Your task to perform on an android device: check out phone information Image 0: 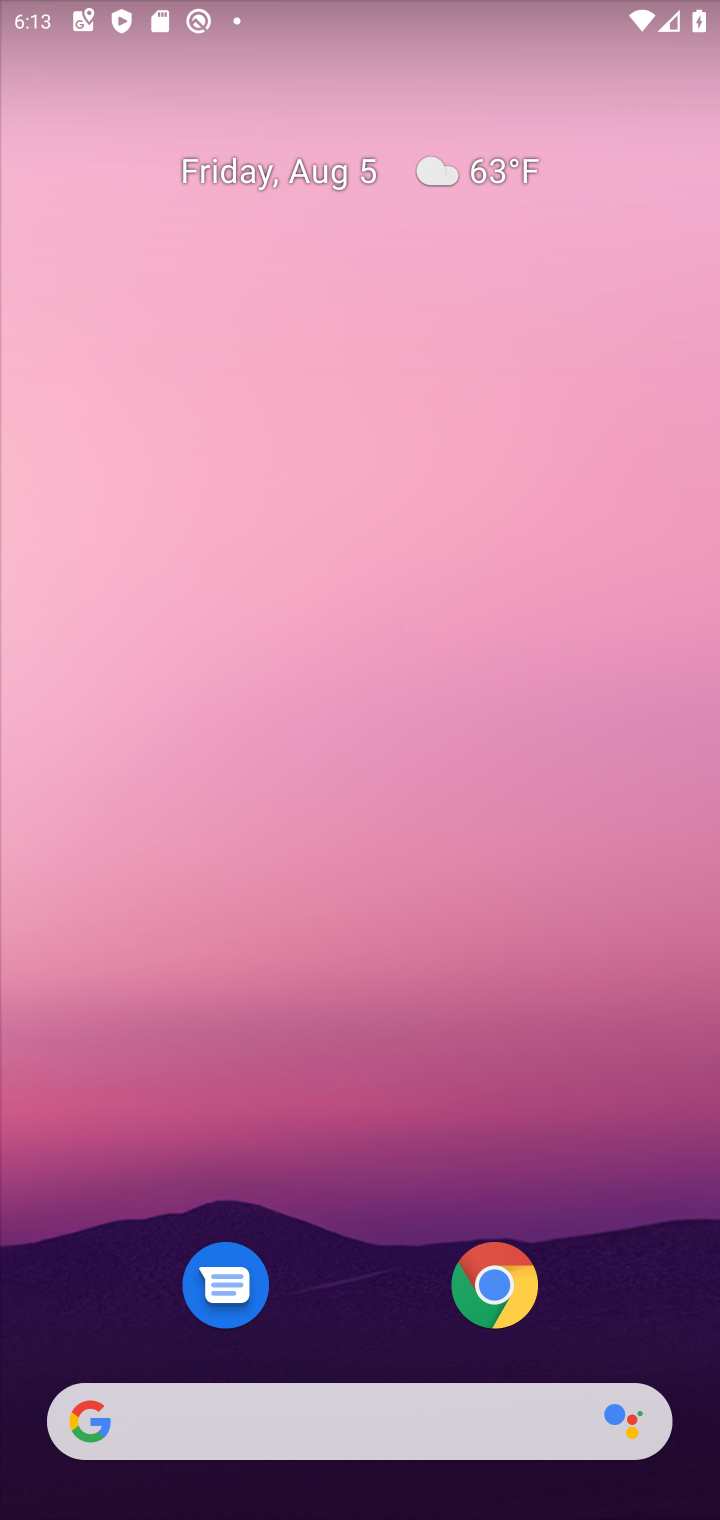
Step 0: drag from (367, 1282) to (316, 510)
Your task to perform on an android device: check out phone information Image 1: 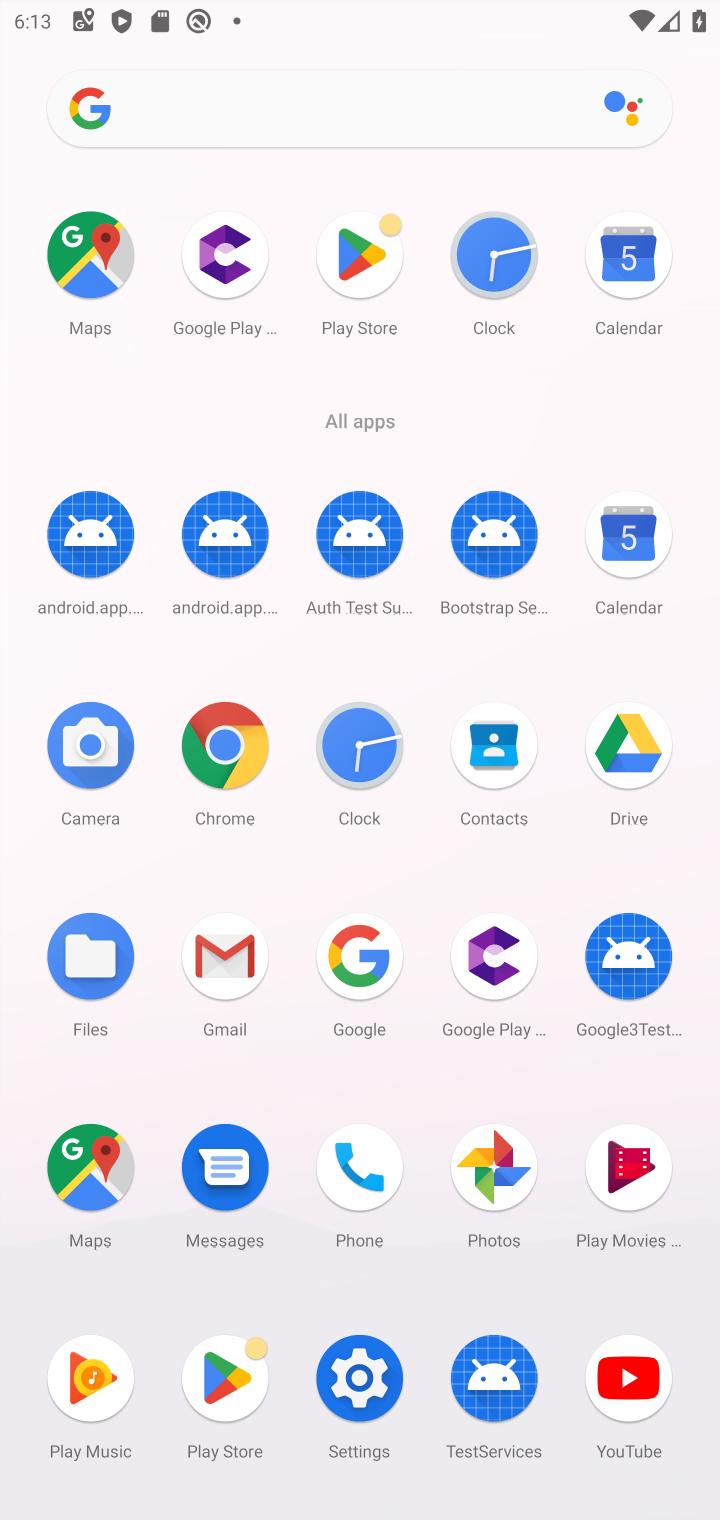
Step 1: click (359, 1369)
Your task to perform on an android device: check out phone information Image 2: 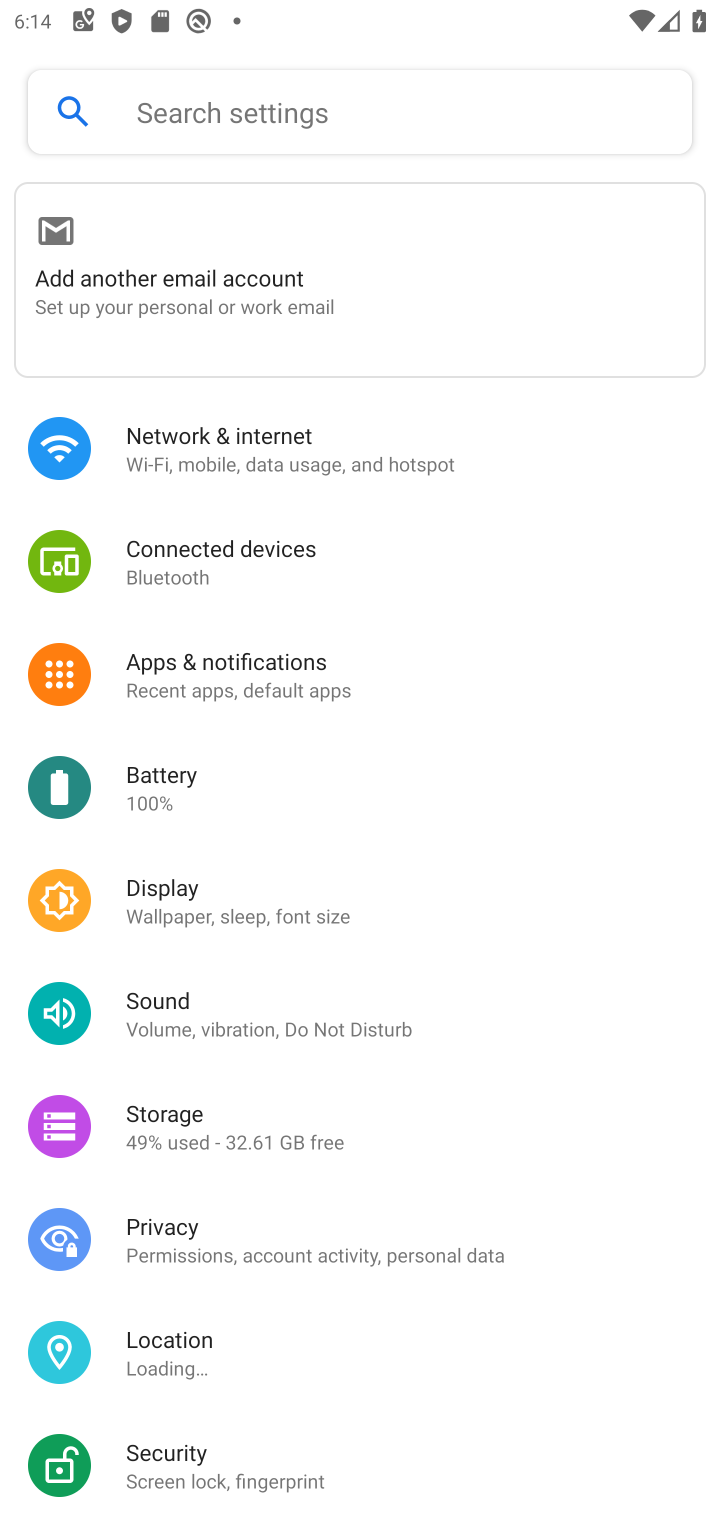
Step 2: drag from (254, 1462) to (254, 701)
Your task to perform on an android device: check out phone information Image 3: 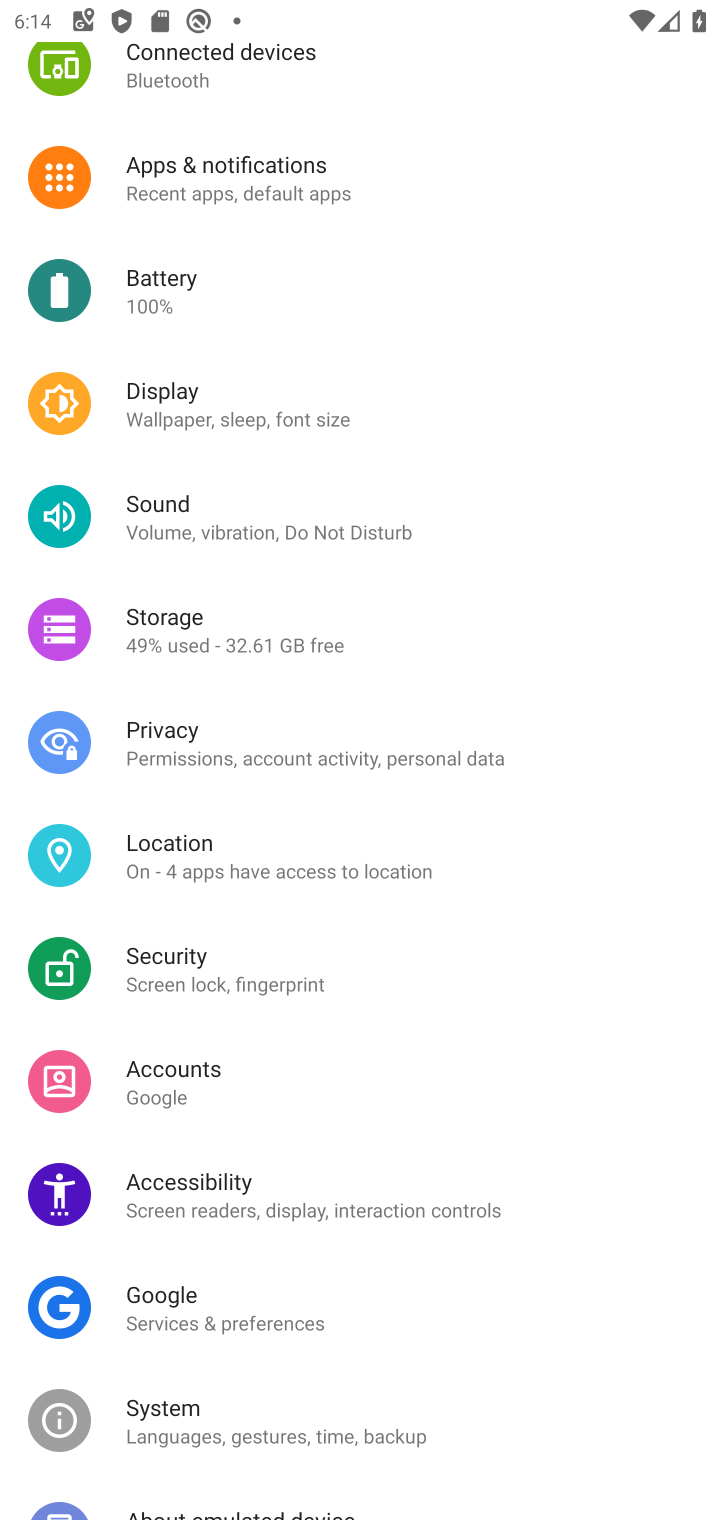
Step 3: drag from (197, 1308) to (196, 835)
Your task to perform on an android device: check out phone information Image 4: 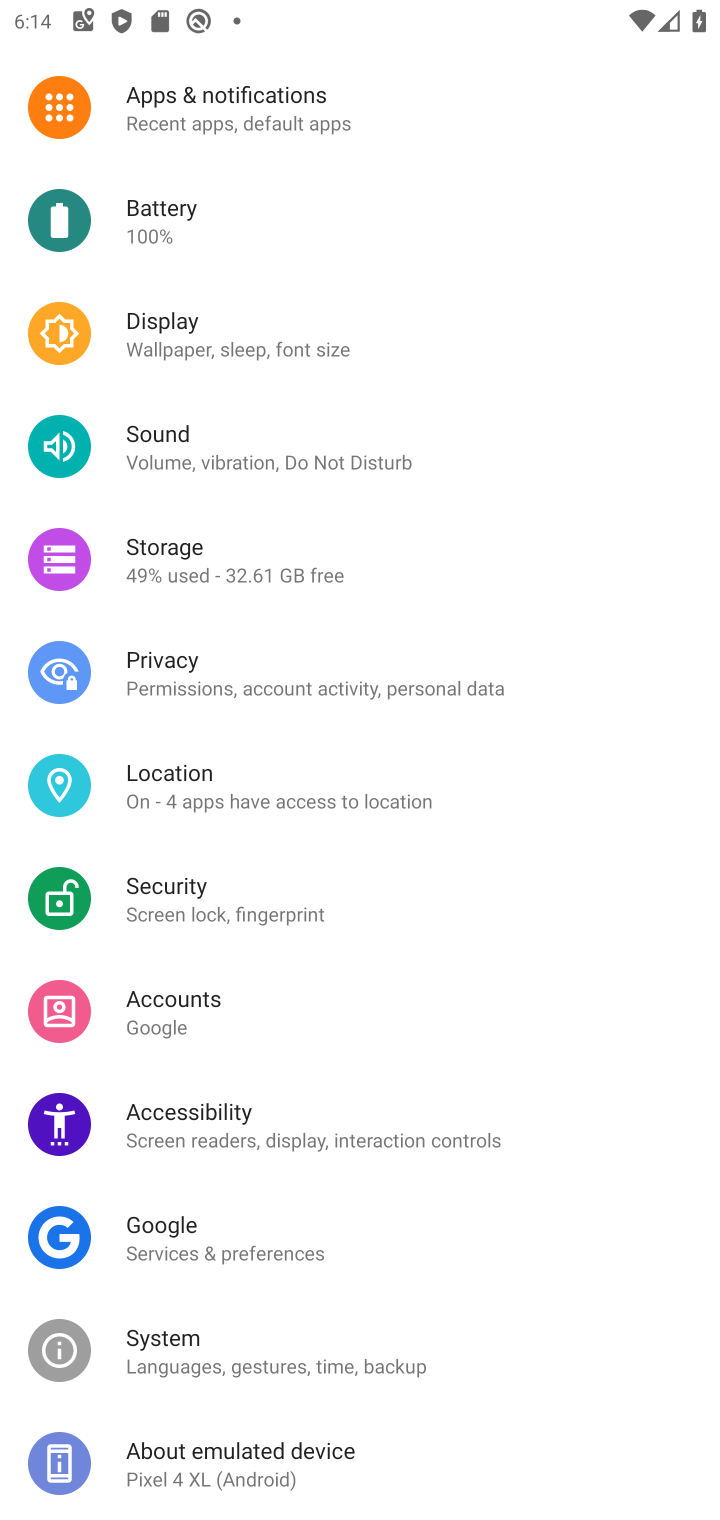
Step 4: click (245, 1474)
Your task to perform on an android device: check out phone information Image 5: 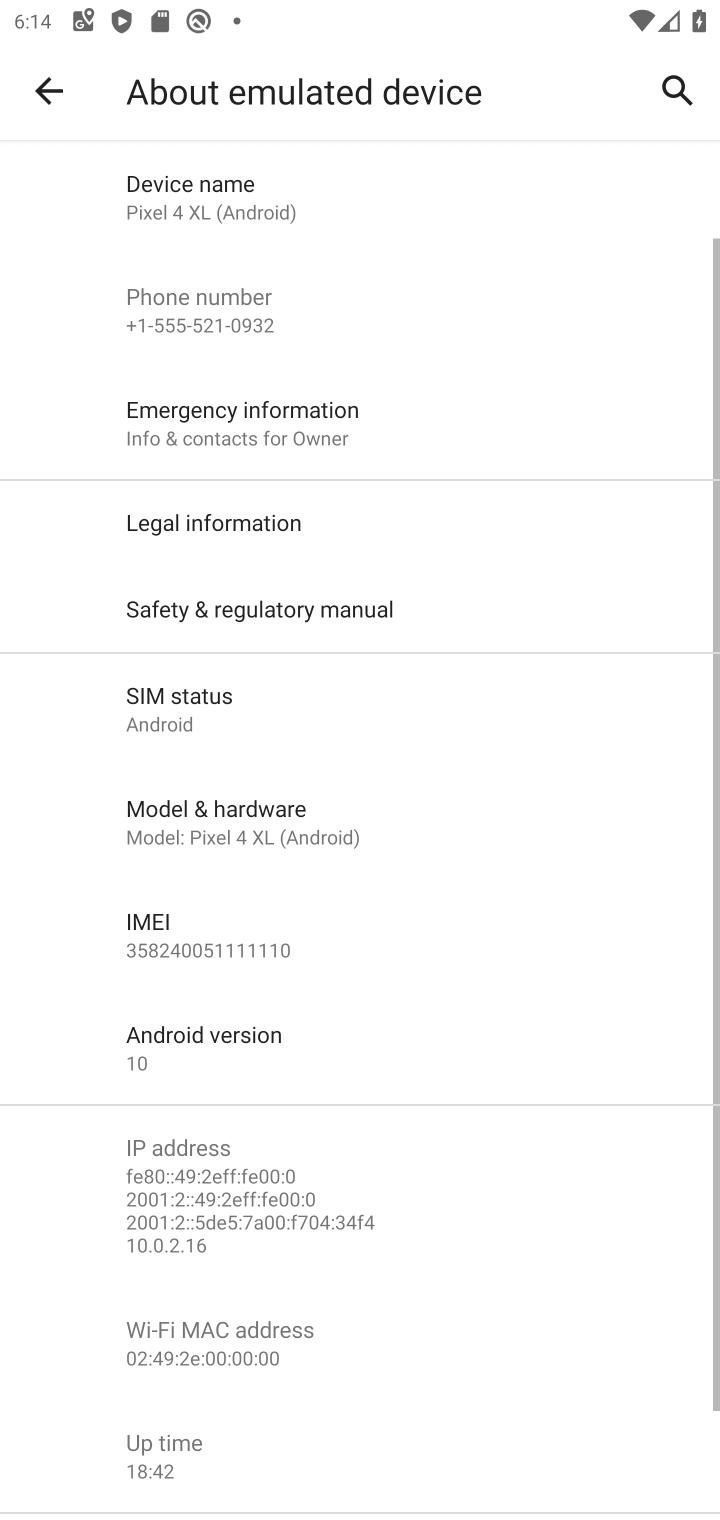
Step 5: task complete